Your task to perform on an android device: turn off location history Image 0: 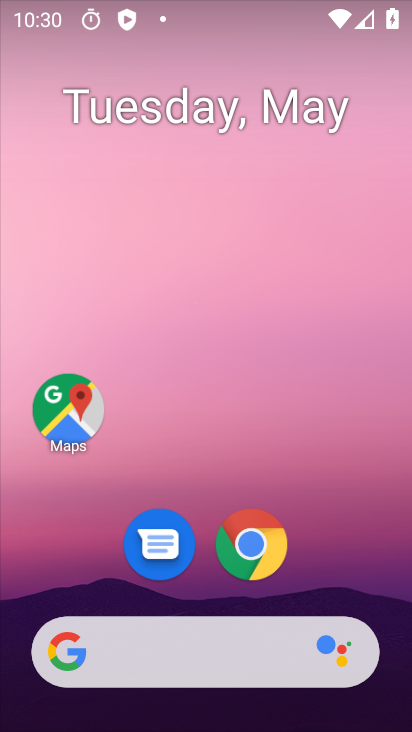
Step 0: drag from (397, 611) to (246, 139)
Your task to perform on an android device: turn off location history Image 1: 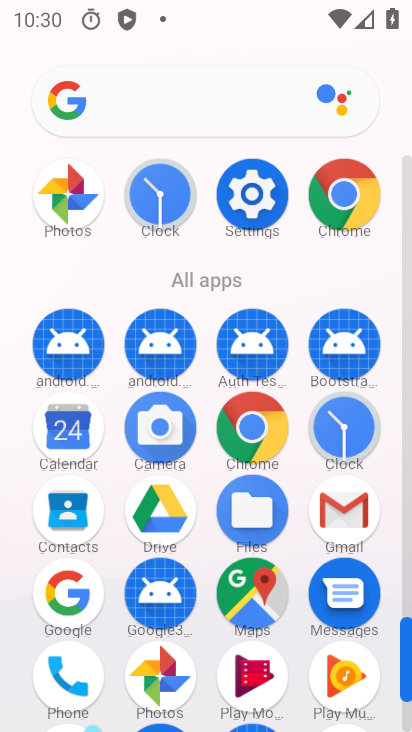
Step 1: click (266, 579)
Your task to perform on an android device: turn off location history Image 2: 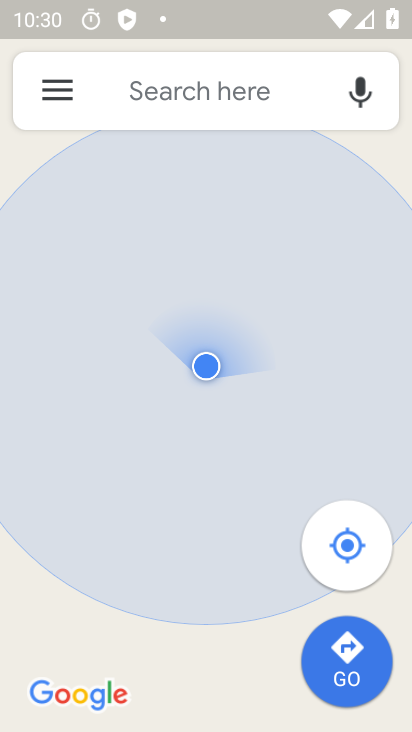
Step 2: click (55, 103)
Your task to perform on an android device: turn off location history Image 3: 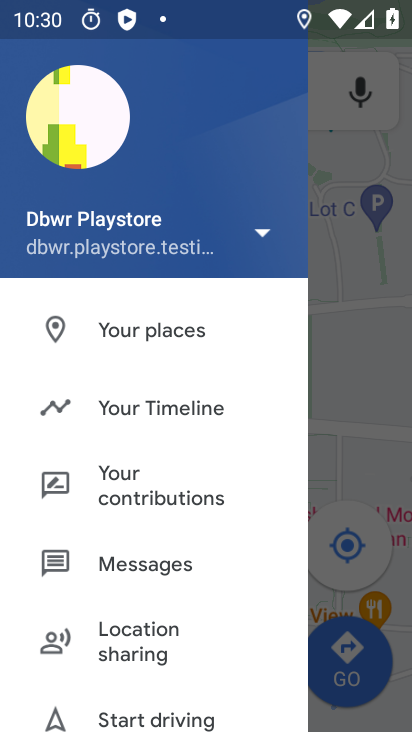
Step 3: click (206, 413)
Your task to perform on an android device: turn off location history Image 4: 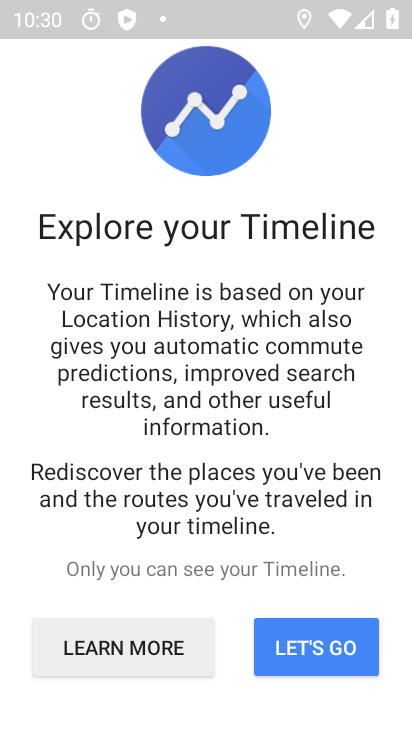
Step 4: click (307, 656)
Your task to perform on an android device: turn off location history Image 5: 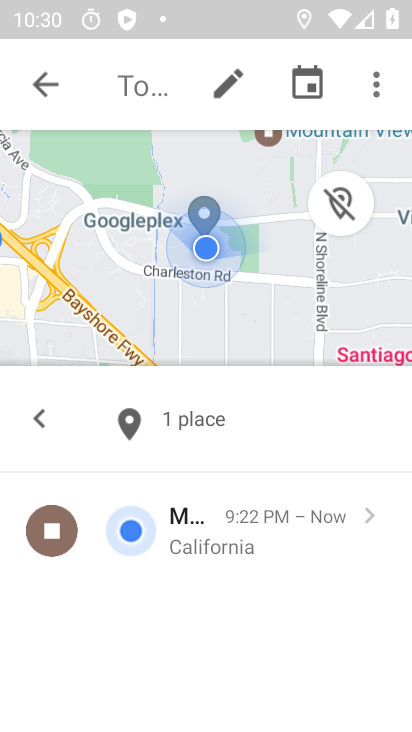
Step 5: click (379, 101)
Your task to perform on an android device: turn off location history Image 6: 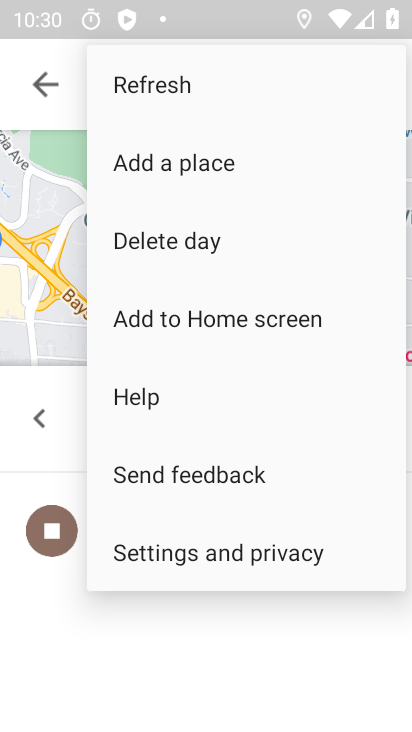
Step 6: click (273, 548)
Your task to perform on an android device: turn off location history Image 7: 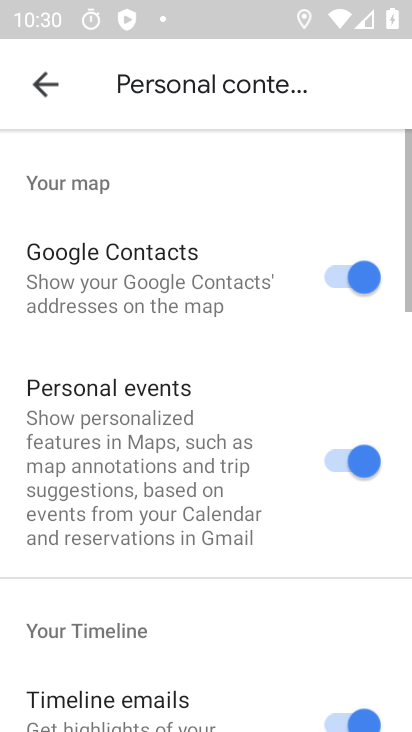
Step 7: drag from (216, 719) to (201, 211)
Your task to perform on an android device: turn off location history Image 8: 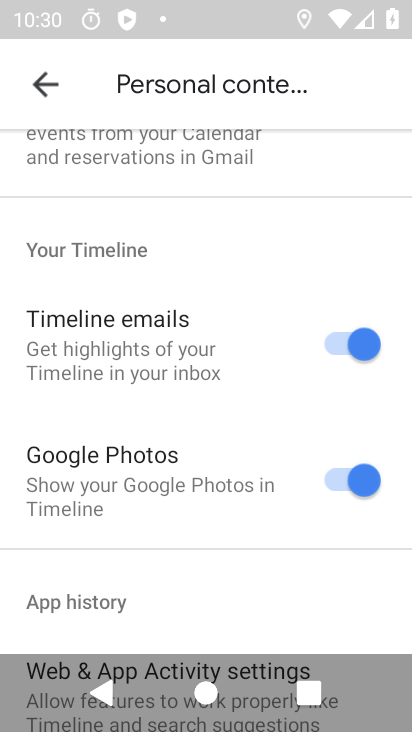
Step 8: drag from (222, 556) to (218, 192)
Your task to perform on an android device: turn off location history Image 9: 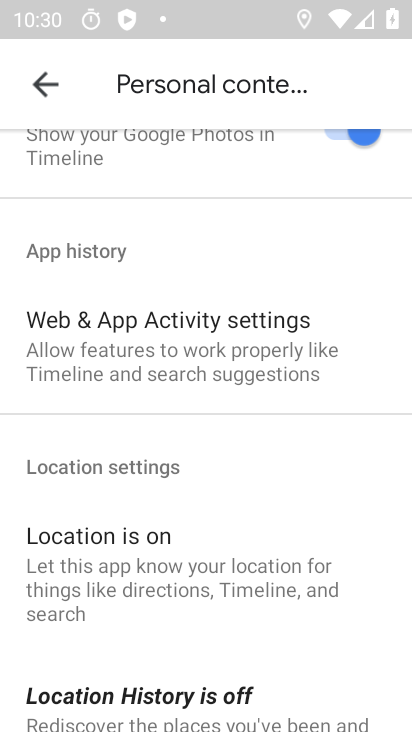
Step 9: drag from (232, 643) to (224, 480)
Your task to perform on an android device: turn off location history Image 10: 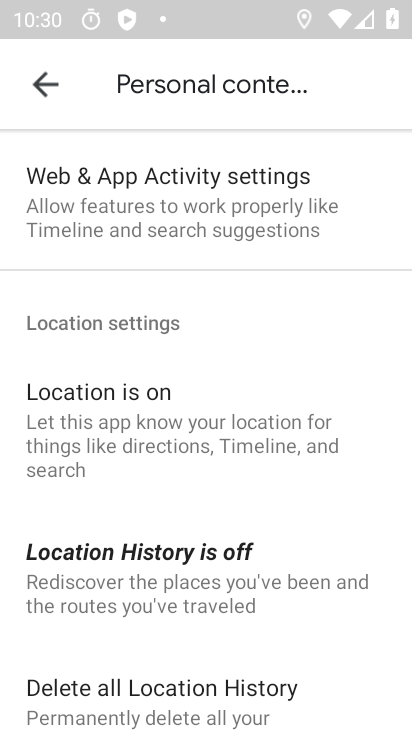
Step 10: click (237, 634)
Your task to perform on an android device: turn off location history Image 11: 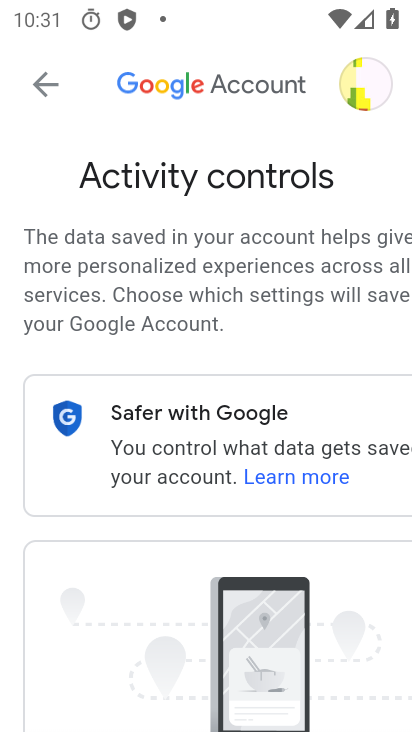
Step 11: task complete